Your task to perform on an android device: Add "alienware area 51" to the cart on target Image 0: 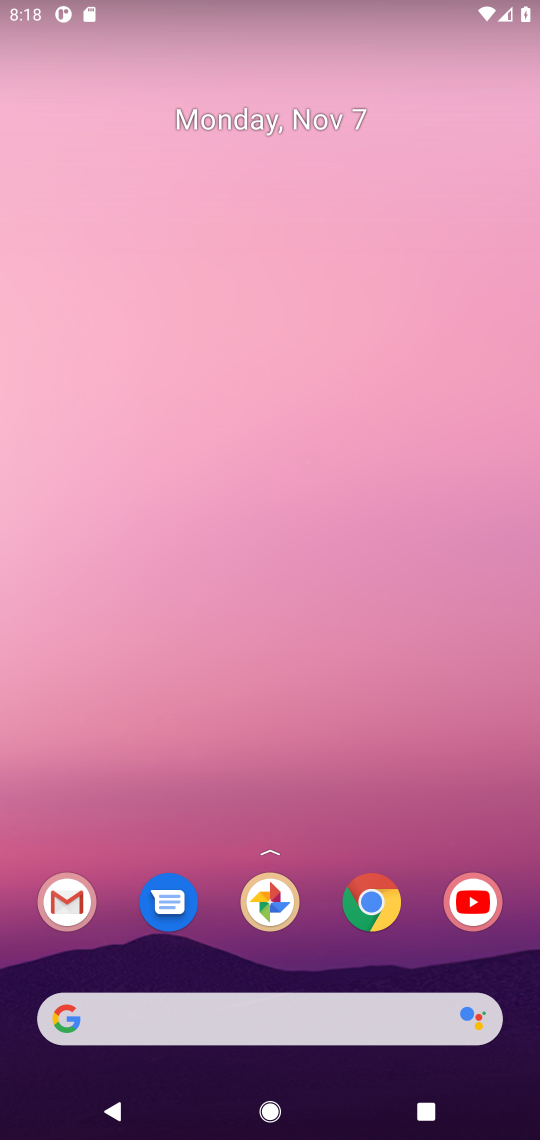
Step 0: click (380, 899)
Your task to perform on an android device: Add "alienware area 51" to the cart on target Image 1: 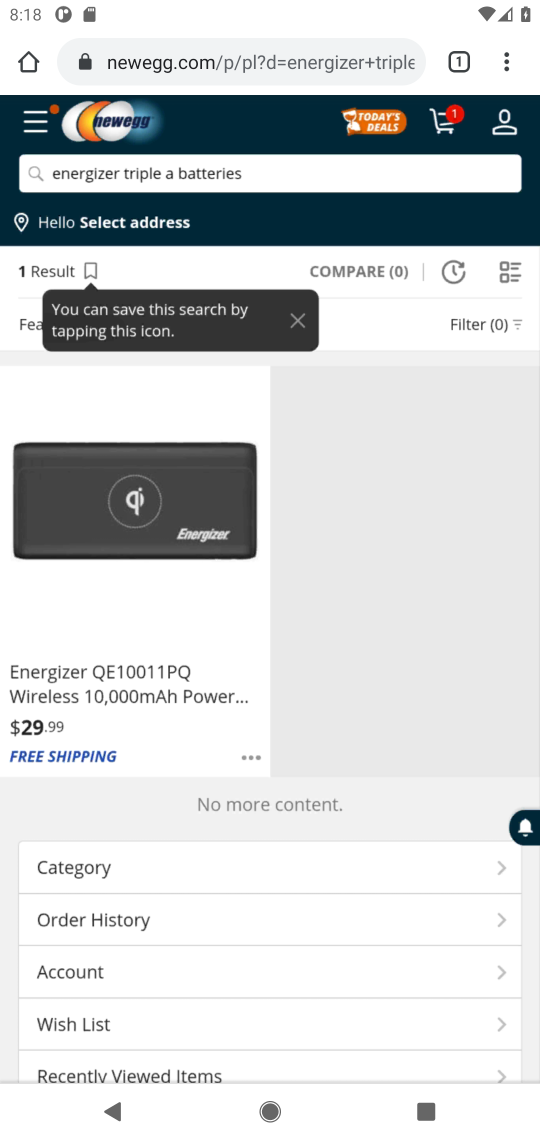
Step 1: click (139, 51)
Your task to perform on an android device: Add "alienware area 51" to the cart on target Image 2: 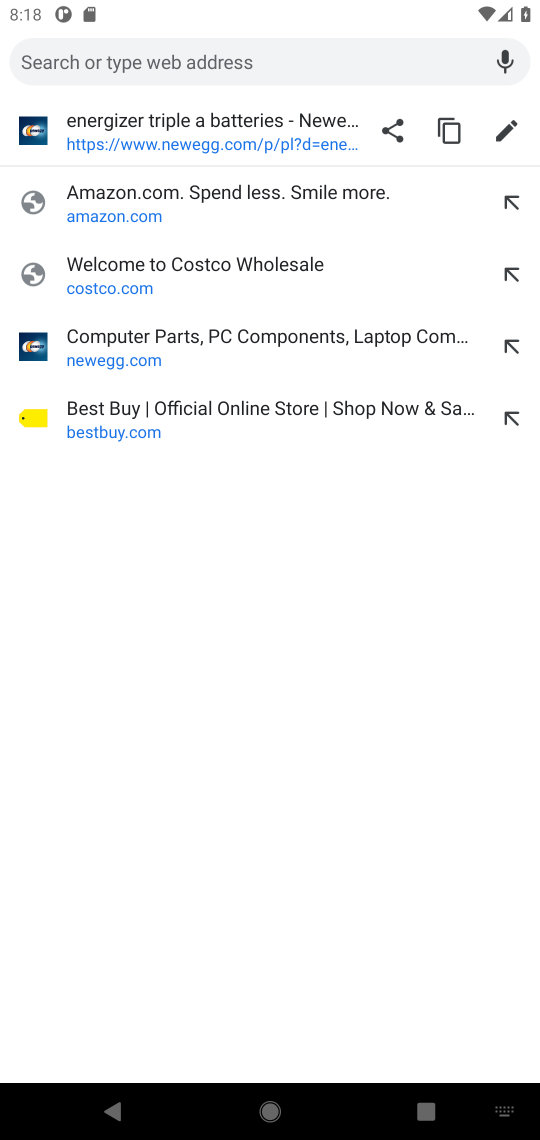
Step 2: type "target.com"
Your task to perform on an android device: Add "alienware area 51" to the cart on target Image 3: 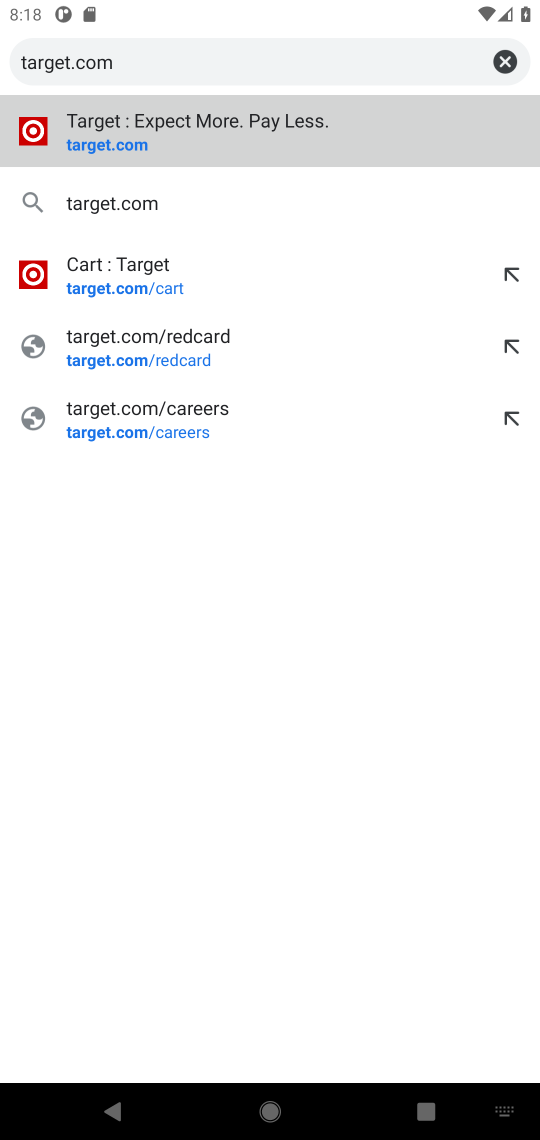
Step 3: click (122, 152)
Your task to perform on an android device: Add "alienware area 51" to the cart on target Image 4: 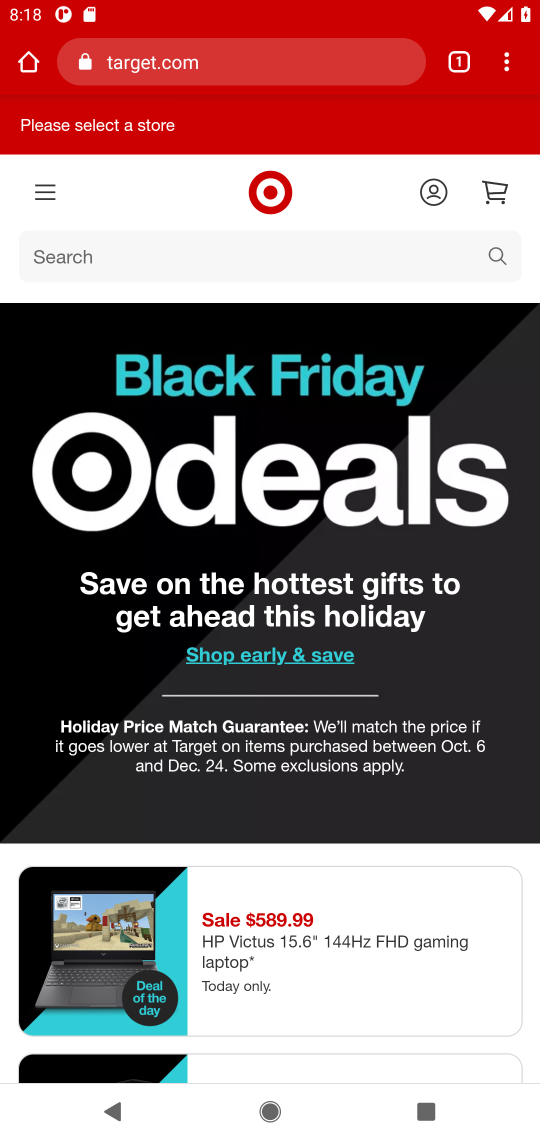
Step 4: click (489, 261)
Your task to perform on an android device: Add "alienware area 51" to the cart on target Image 5: 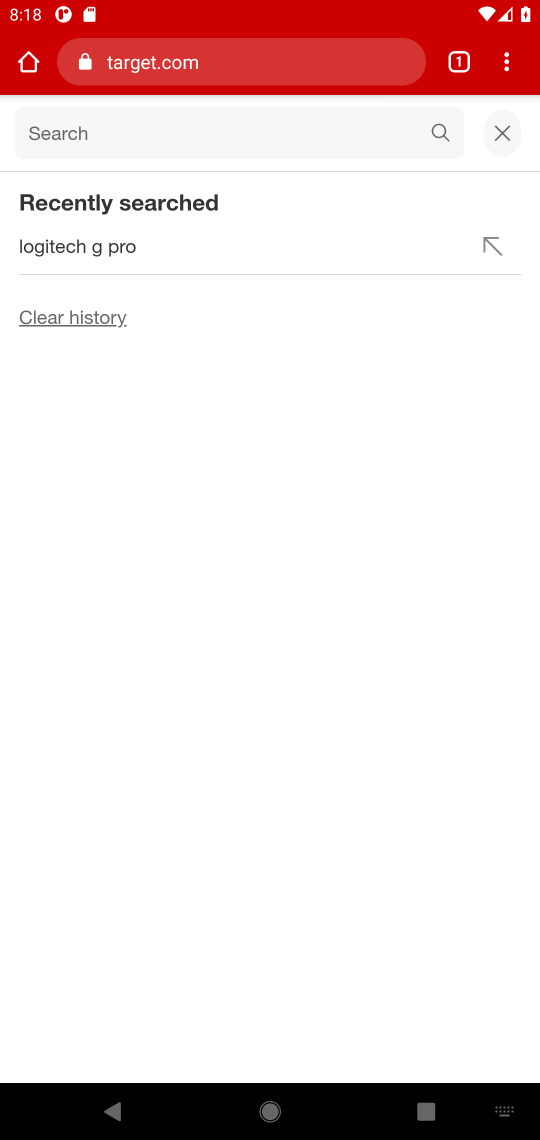
Step 5: click (439, 140)
Your task to perform on an android device: Add "alienware area 51" to the cart on target Image 6: 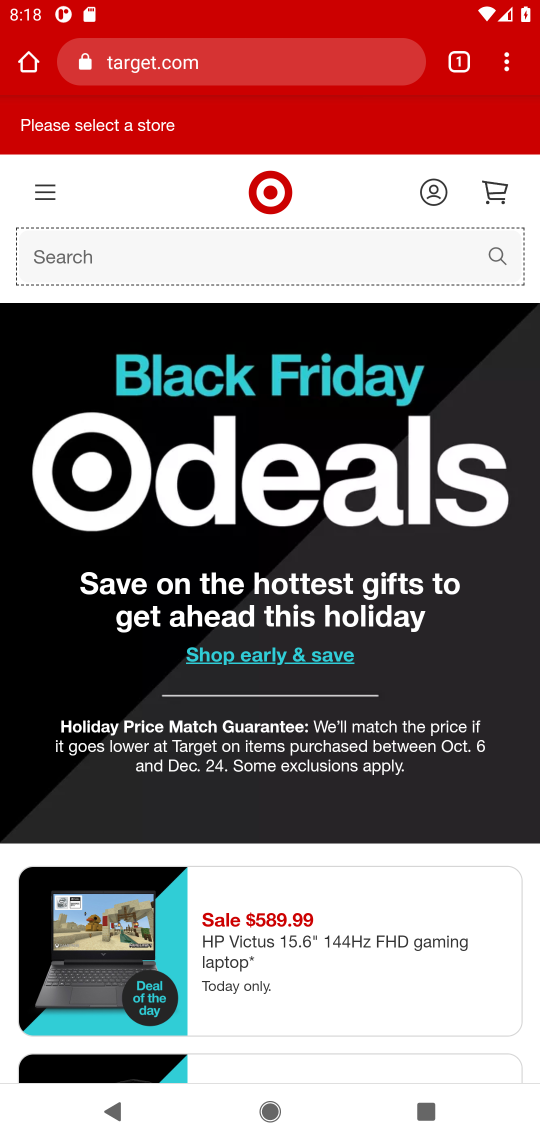
Step 6: click (239, 264)
Your task to perform on an android device: Add "alienware area 51" to the cart on target Image 7: 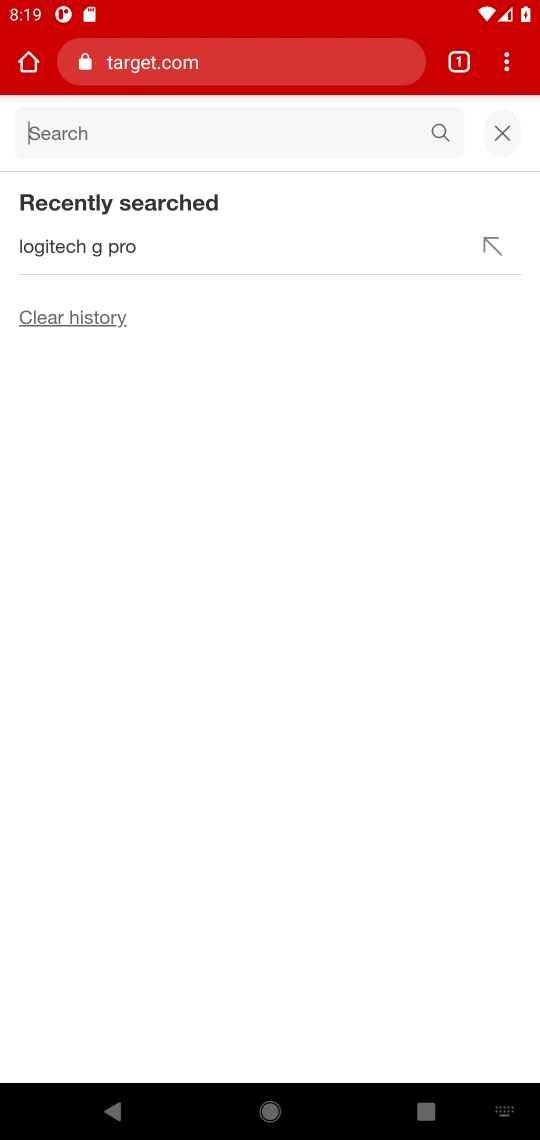
Step 7: type "alienware area 51"
Your task to perform on an android device: Add "alienware area 51" to the cart on target Image 8: 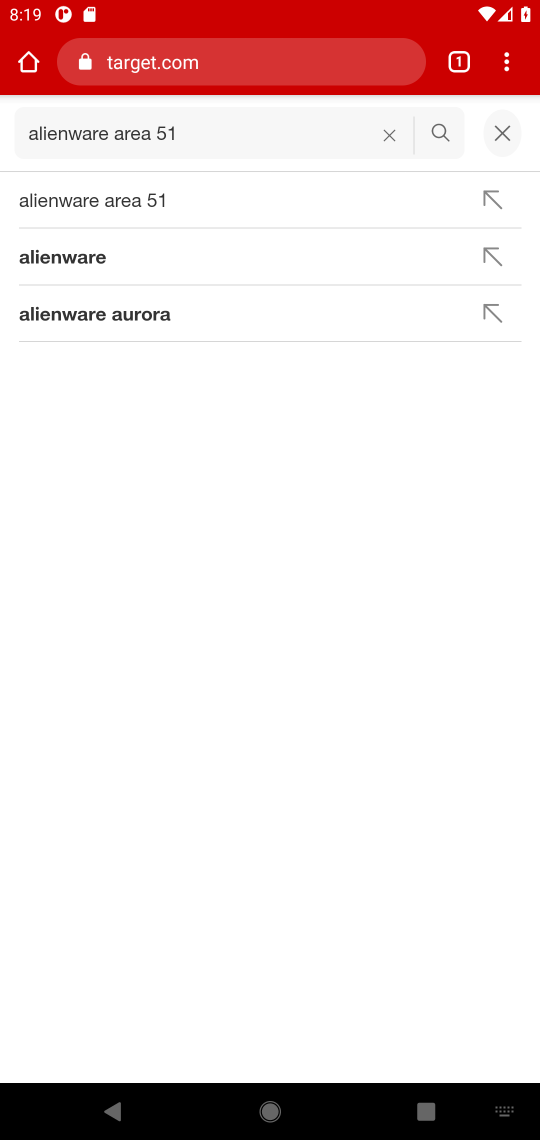
Step 8: click (130, 208)
Your task to perform on an android device: Add "alienware area 51" to the cart on target Image 9: 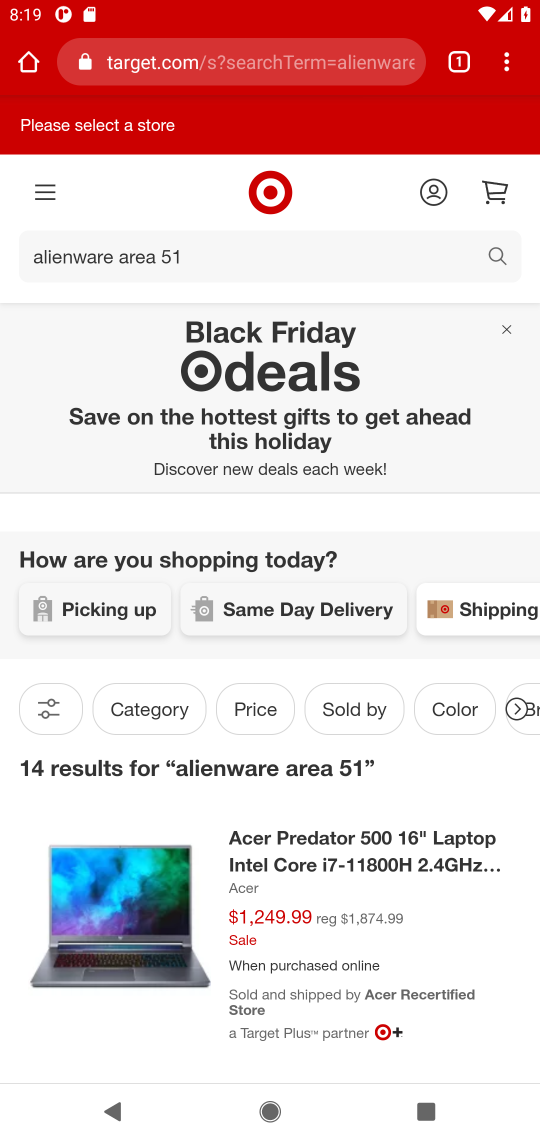
Step 9: drag from (143, 962) to (161, 478)
Your task to perform on an android device: Add "alienware area 51" to the cart on target Image 10: 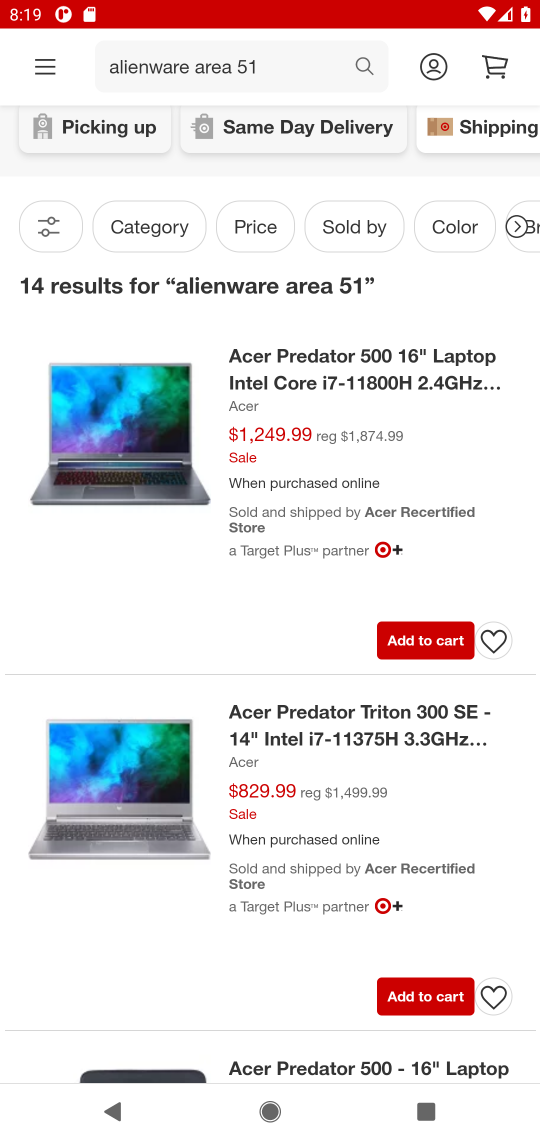
Step 10: drag from (200, 897) to (200, 431)
Your task to perform on an android device: Add "alienware area 51" to the cart on target Image 11: 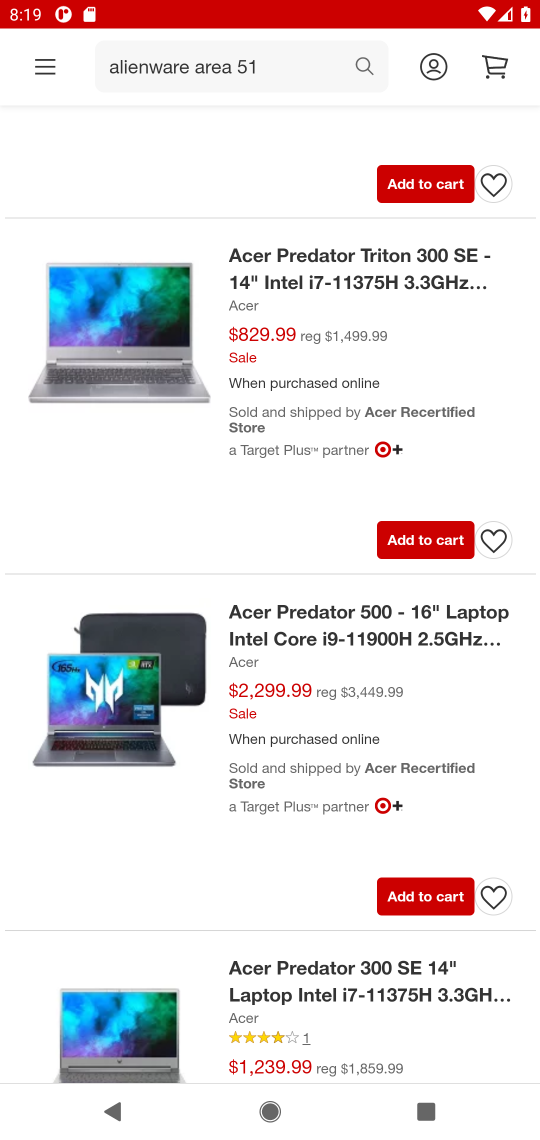
Step 11: drag from (211, 851) to (217, 520)
Your task to perform on an android device: Add "alienware area 51" to the cart on target Image 12: 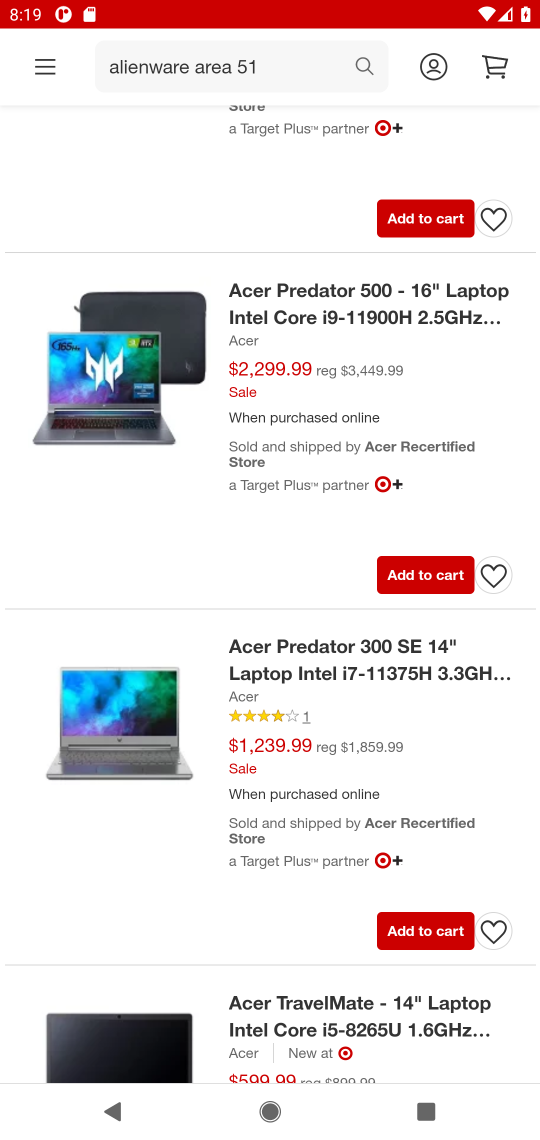
Step 12: drag from (198, 900) to (201, 555)
Your task to perform on an android device: Add "alienware area 51" to the cart on target Image 13: 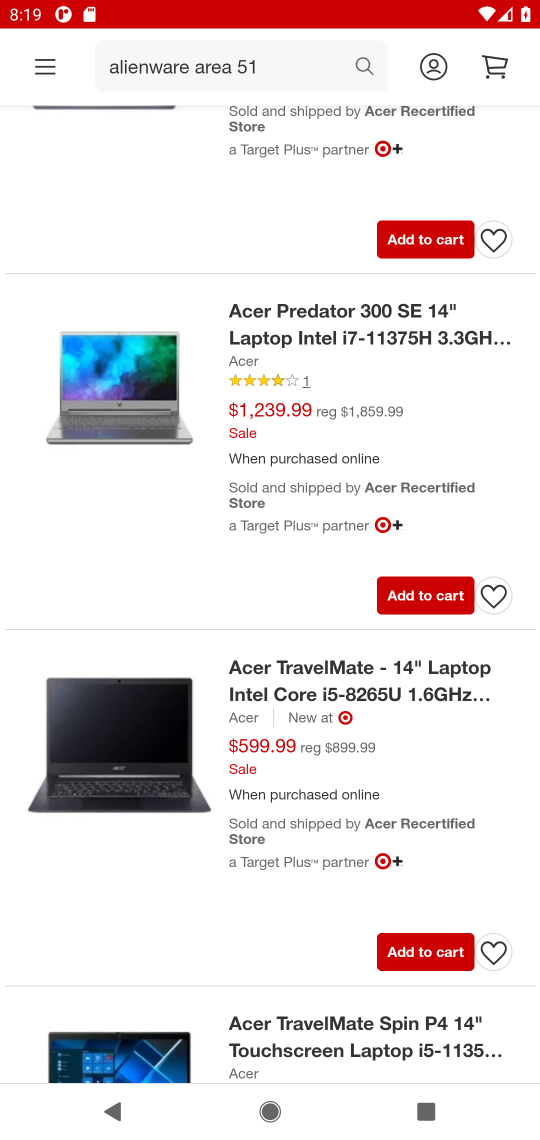
Step 13: drag from (171, 975) to (176, 579)
Your task to perform on an android device: Add "alienware area 51" to the cart on target Image 14: 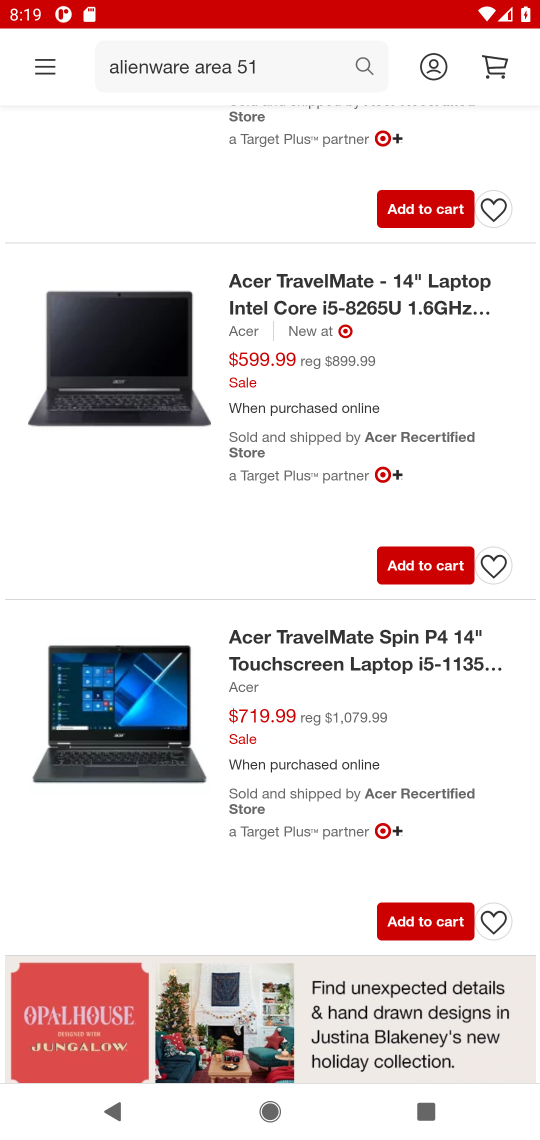
Step 14: drag from (158, 885) to (175, 436)
Your task to perform on an android device: Add "alienware area 51" to the cart on target Image 15: 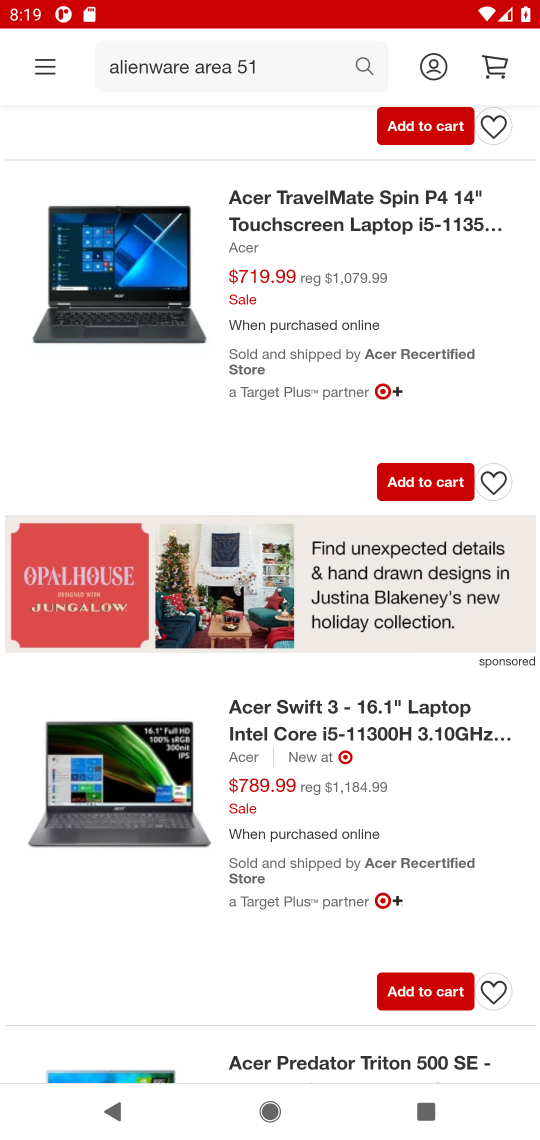
Step 15: drag from (169, 809) to (147, 493)
Your task to perform on an android device: Add "alienware area 51" to the cart on target Image 16: 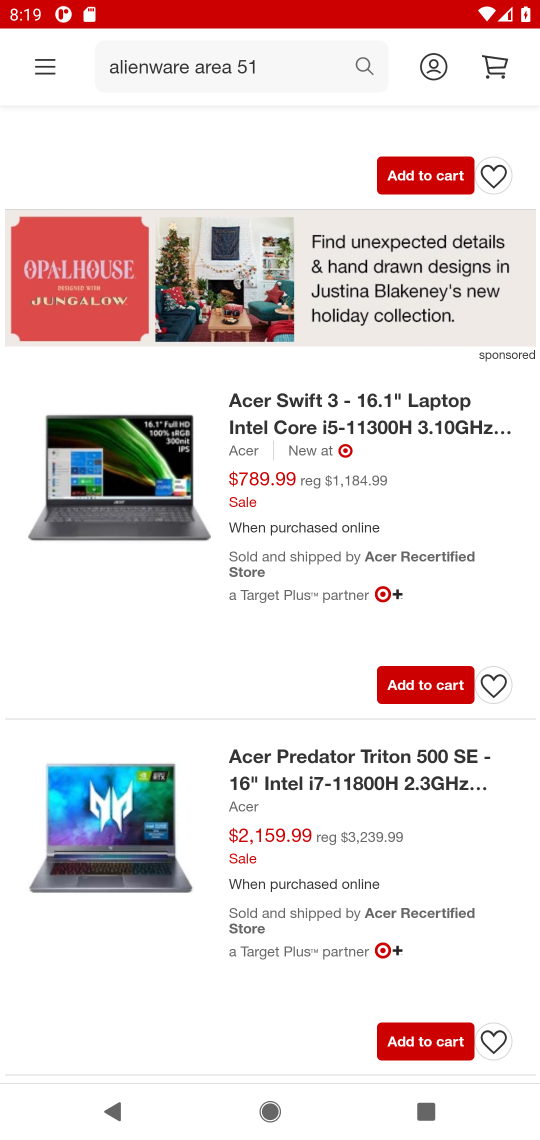
Step 16: drag from (152, 784) to (131, 420)
Your task to perform on an android device: Add "alienware area 51" to the cart on target Image 17: 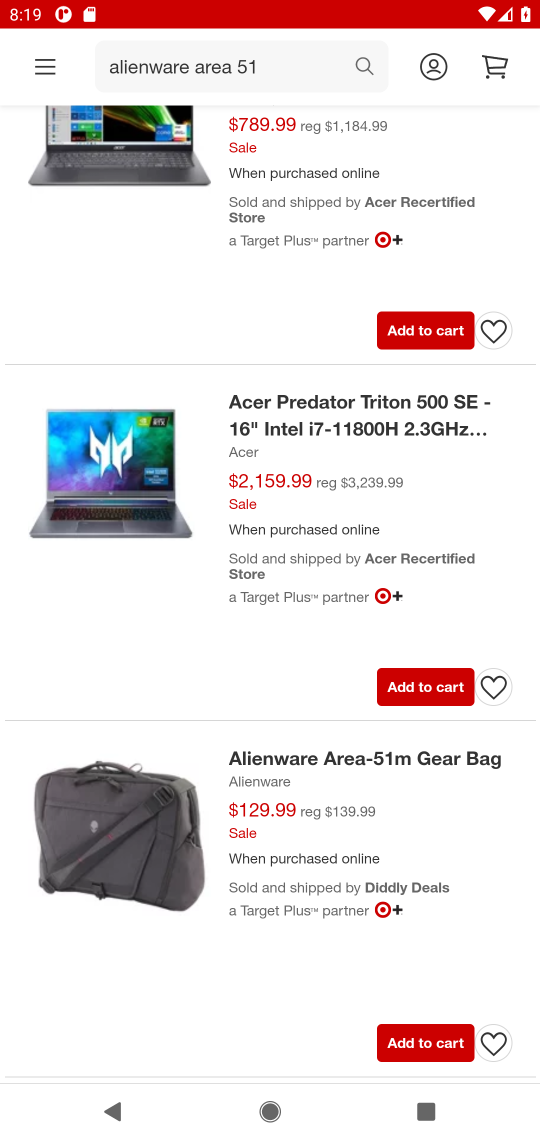
Step 17: drag from (149, 918) to (165, 690)
Your task to perform on an android device: Add "alienware area 51" to the cart on target Image 18: 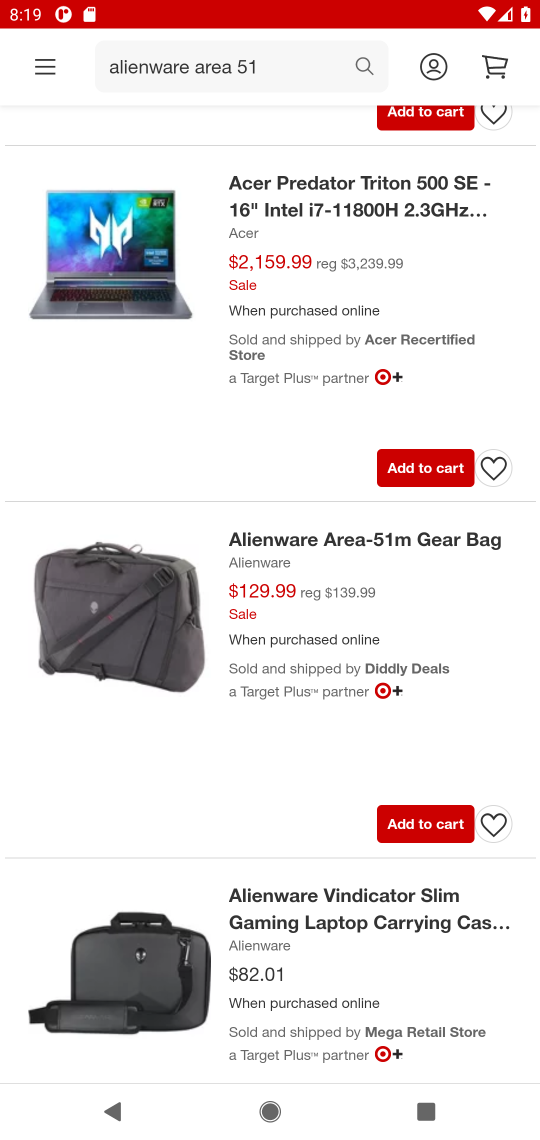
Step 18: click (398, 831)
Your task to perform on an android device: Add "alienware area 51" to the cart on target Image 19: 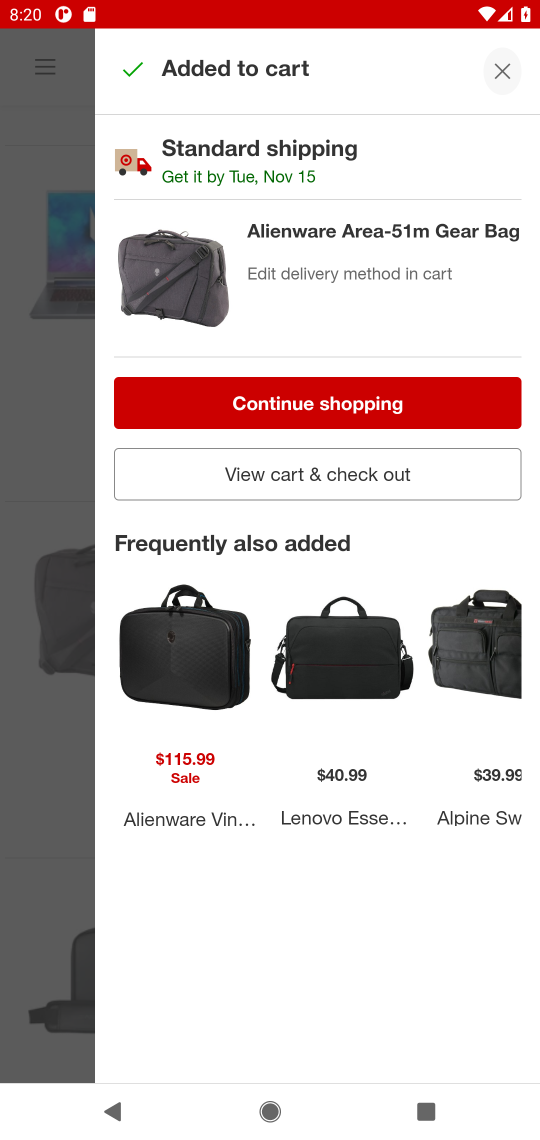
Step 19: task complete